Your task to perform on an android device: Go to privacy settings Image 0: 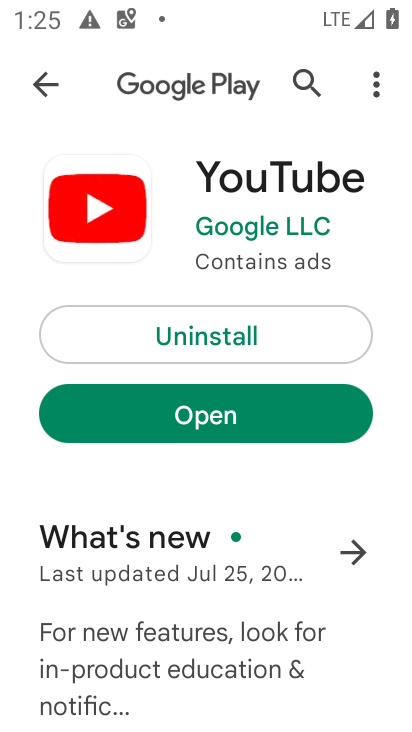
Step 0: press home button
Your task to perform on an android device: Go to privacy settings Image 1: 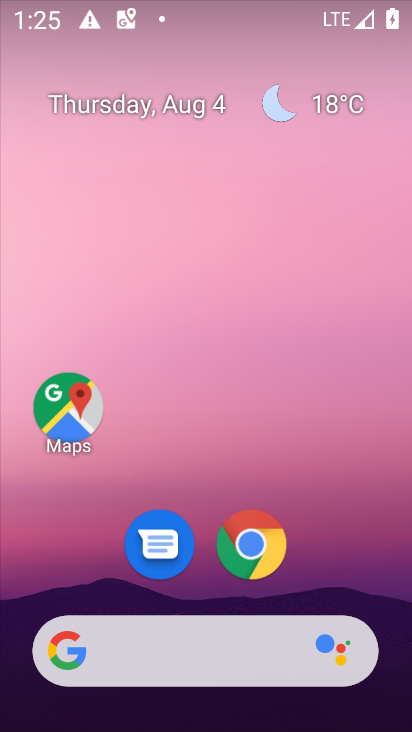
Step 1: drag from (393, 683) to (322, 20)
Your task to perform on an android device: Go to privacy settings Image 2: 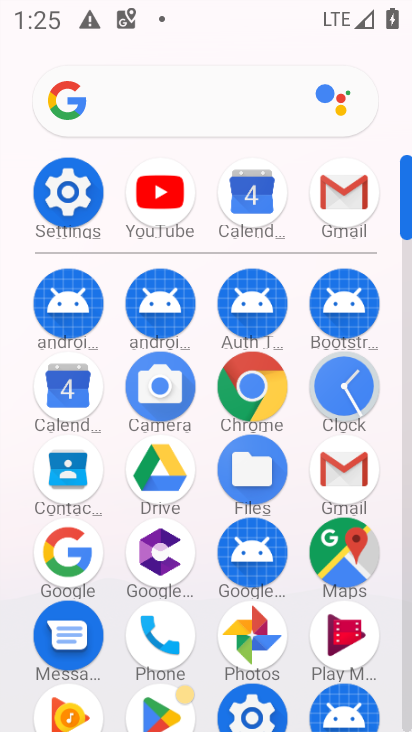
Step 2: click (59, 188)
Your task to perform on an android device: Go to privacy settings Image 3: 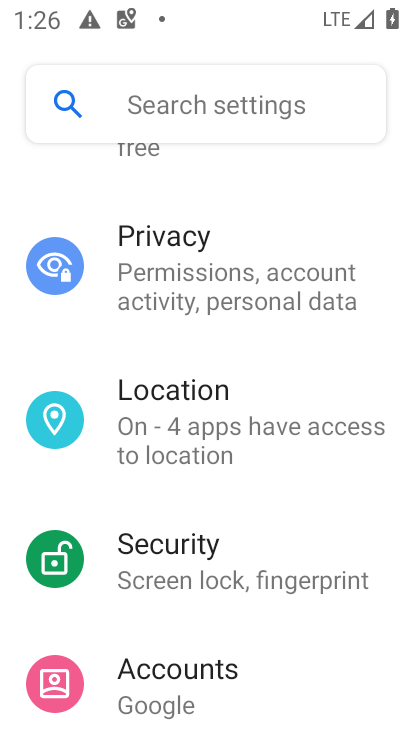
Step 3: click (156, 253)
Your task to perform on an android device: Go to privacy settings Image 4: 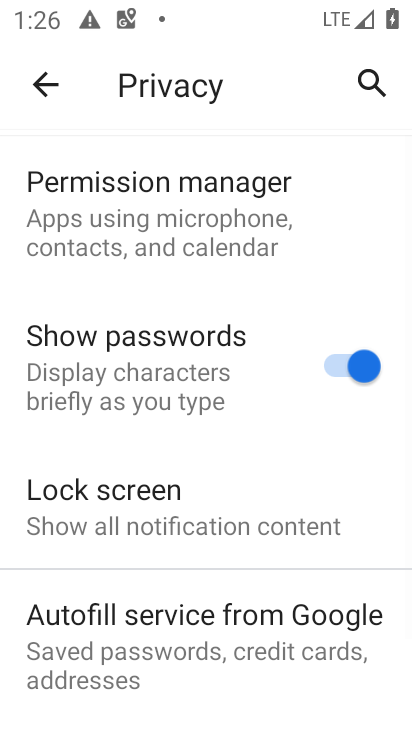
Step 4: drag from (290, 680) to (231, 227)
Your task to perform on an android device: Go to privacy settings Image 5: 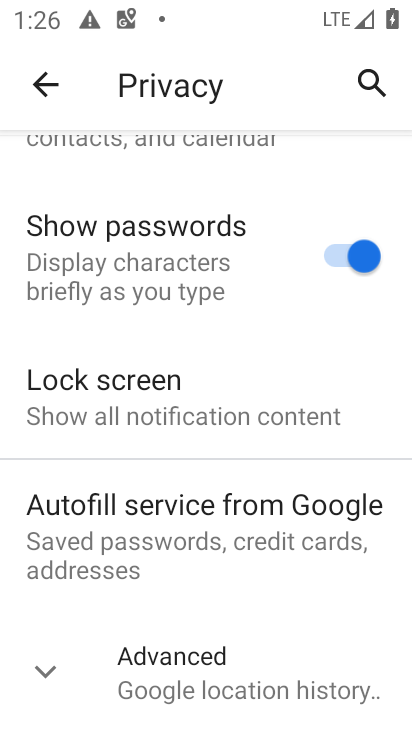
Step 5: click (46, 668)
Your task to perform on an android device: Go to privacy settings Image 6: 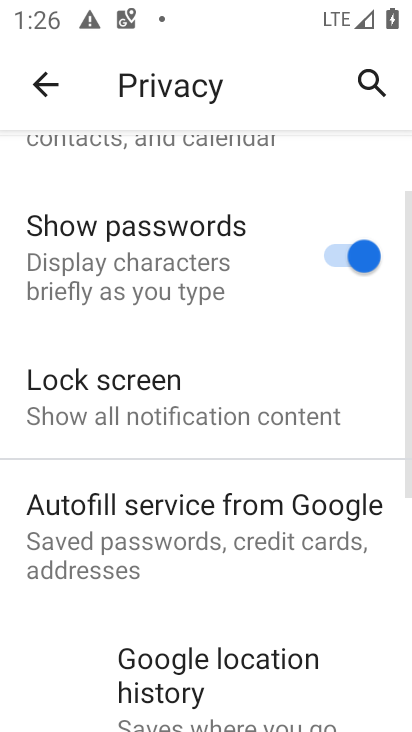
Step 6: task complete